Your task to perform on an android device: Go to Android settings Image 0: 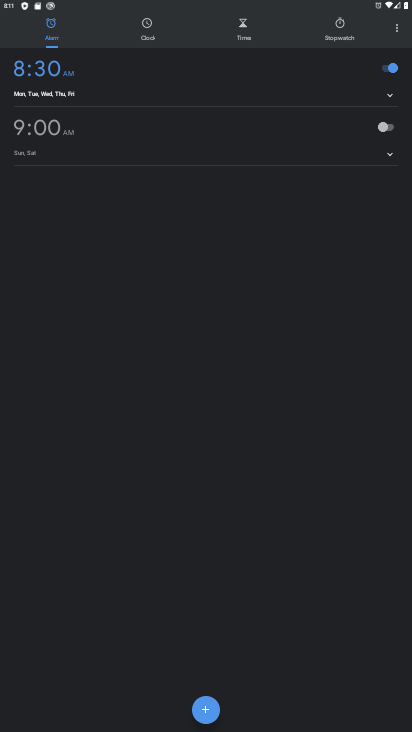
Step 0: press back button
Your task to perform on an android device: Go to Android settings Image 1: 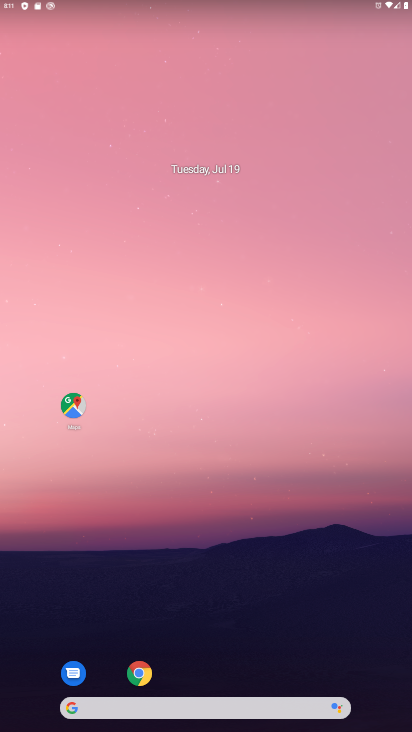
Step 1: drag from (170, 543) to (409, 578)
Your task to perform on an android device: Go to Android settings Image 2: 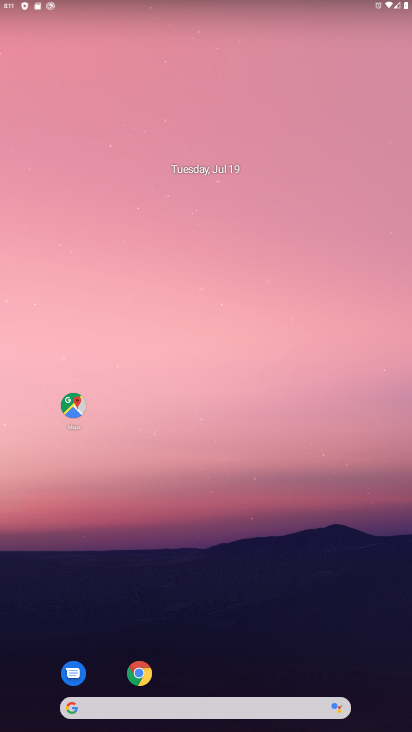
Step 2: drag from (200, 661) to (102, 186)
Your task to perform on an android device: Go to Android settings Image 3: 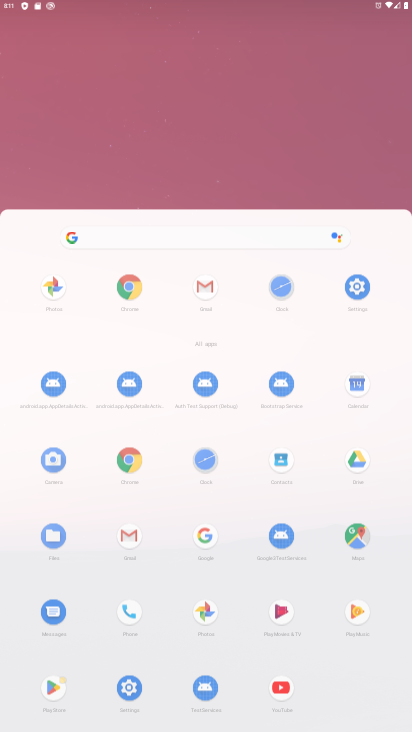
Step 3: drag from (170, 478) to (170, 81)
Your task to perform on an android device: Go to Android settings Image 4: 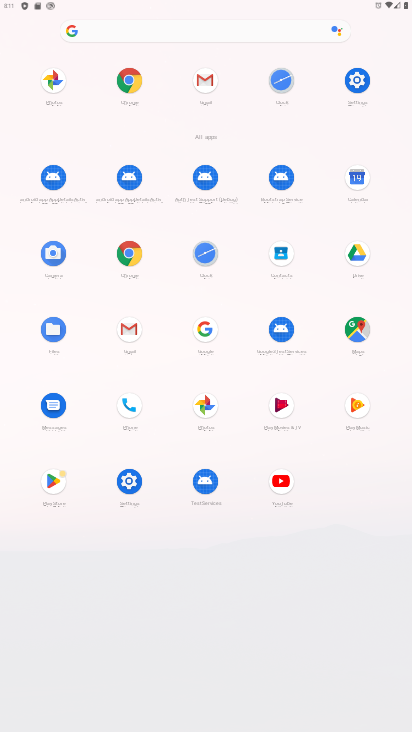
Step 4: click (163, 89)
Your task to perform on an android device: Go to Android settings Image 5: 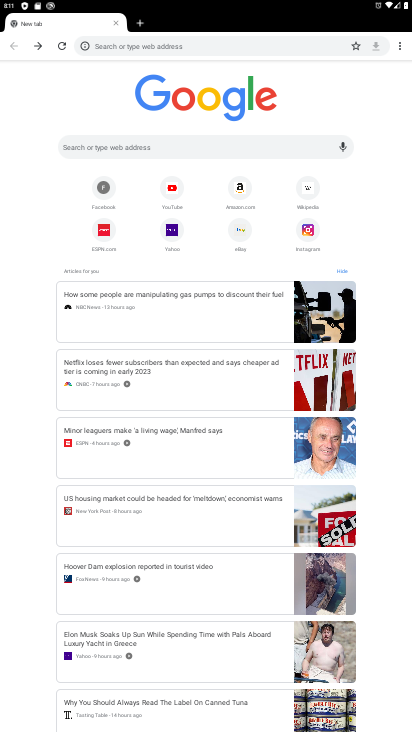
Step 5: press back button
Your task to perform on an android device: Go to Android settings Image 6: 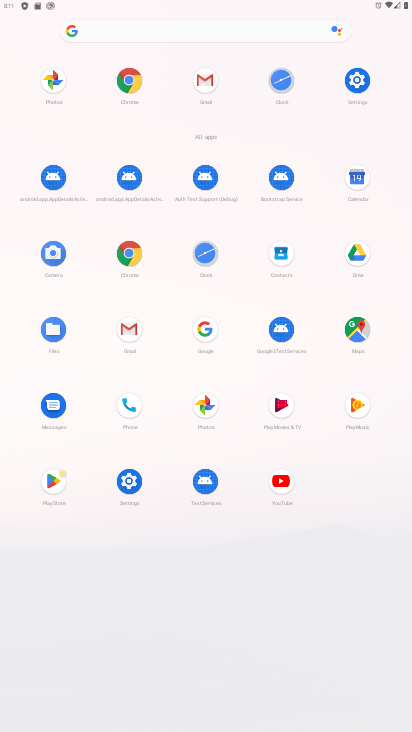
Step 6: click (125, 488)
Your task to perform on an android device: Go to Android settings Image 7: 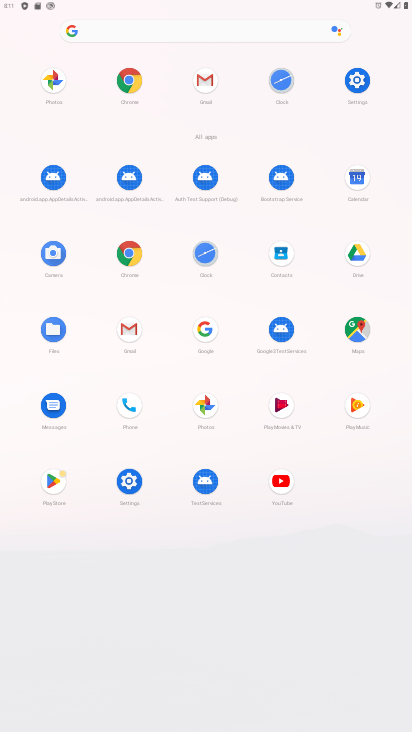
Step 7: click (125, 488)
Your task to perform on an android device: Go to Android settings Image 8: 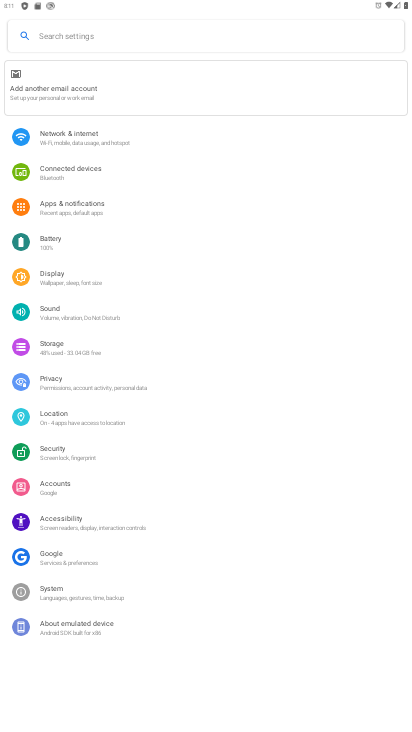
Step 8: click (74, 629)
Your task to perform on an android device: Go to Android settings Image 9: 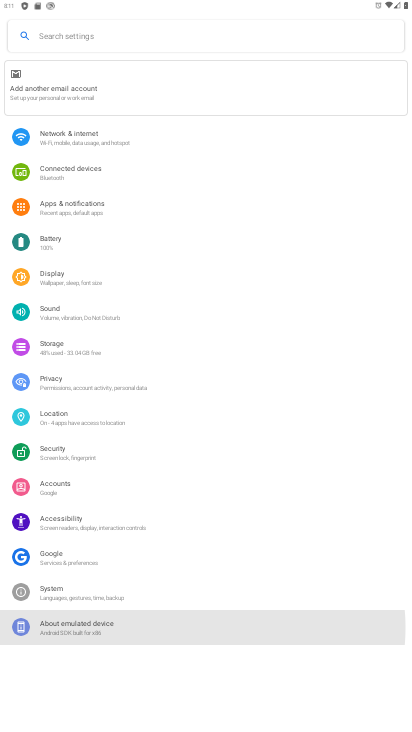
Step 9: click (74, 629)
Your task to perform on an android device: Go to Android settings Image 10: 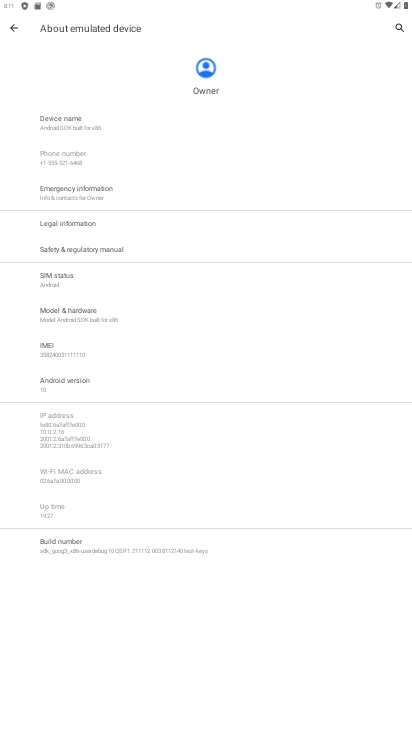
Step 10: drag from (108, 277) to (109, 174)
Your task to perform on an android device: Go to Android settings Image 11: 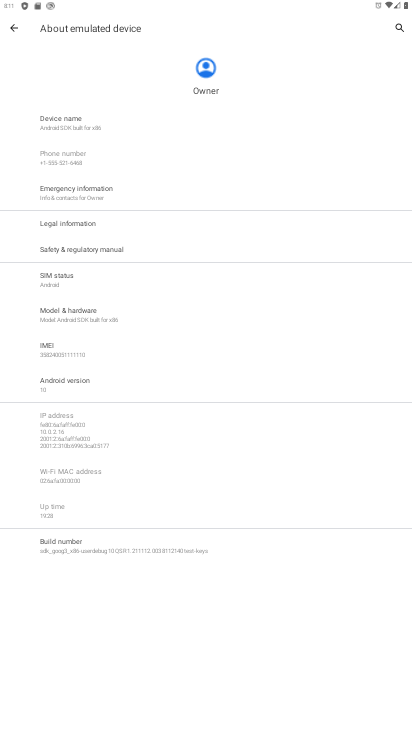
Step 11: drag from (81, 335) to (52, 199)
Your task to perform on an android device: Go to Android settings Image 12: 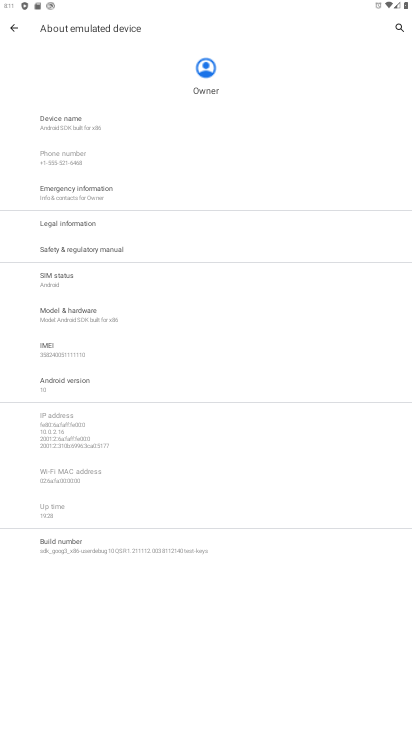
Step 12: click (74, 346)
Your task to perform on an android device: Go to Android settings Image 13: 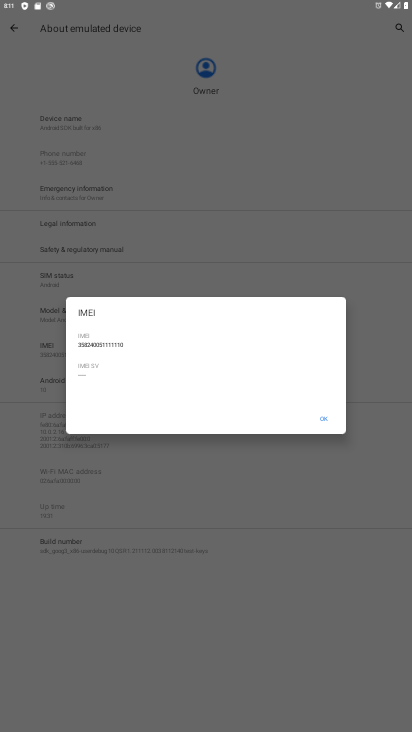
Step 13: click (316, 424)
Your task to perform on an android device: Go to Android settings Image 14: 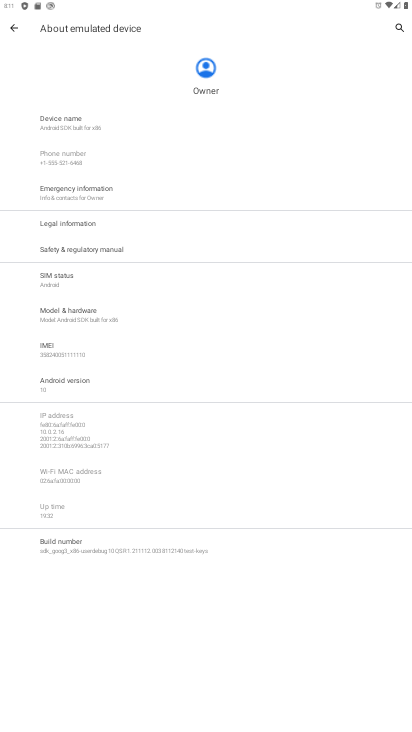
Step 14: task complete